Your task to perform on an android device: What is the news today? Image 0: 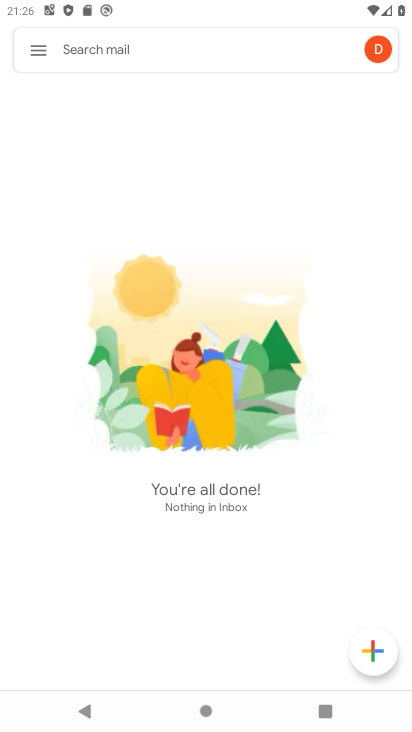
Step 0: press home button
Your task to perform on an android device: What is the news today? Image 1: 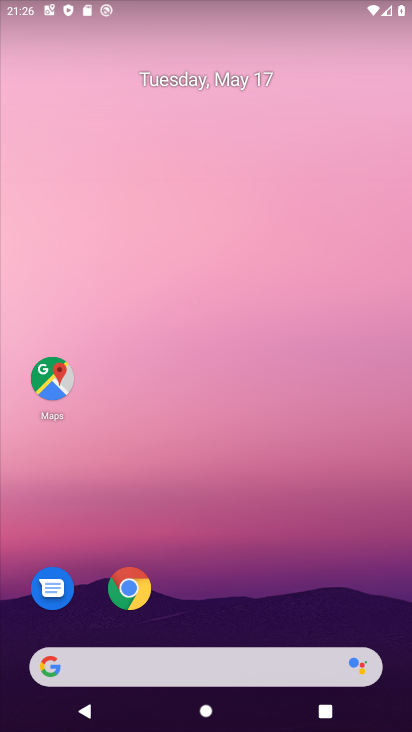
Step 1: drag from (170, 634) to (89, 19)
Your task to perform on an android device: What is the news today? Image 2: 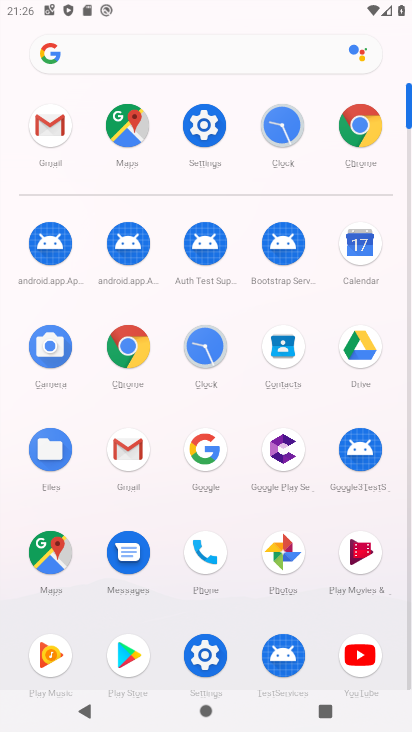
Step 2: click (213, 472)
Your task to perform on an android device: What is the news today? Image 3: 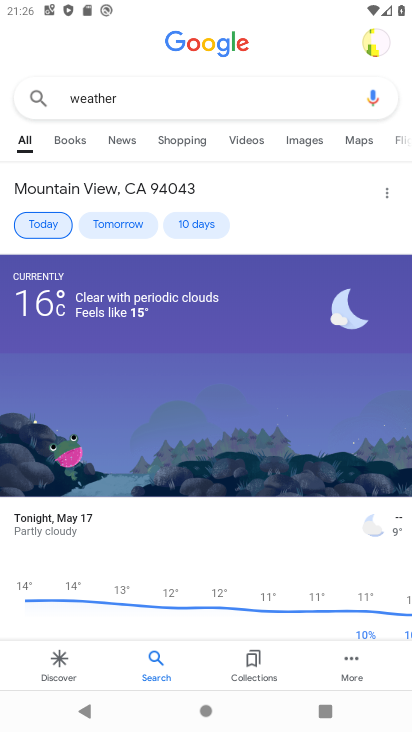
Step 3: click (257, 93)
Your task to perform on an android device: What is the news today? Image 4: 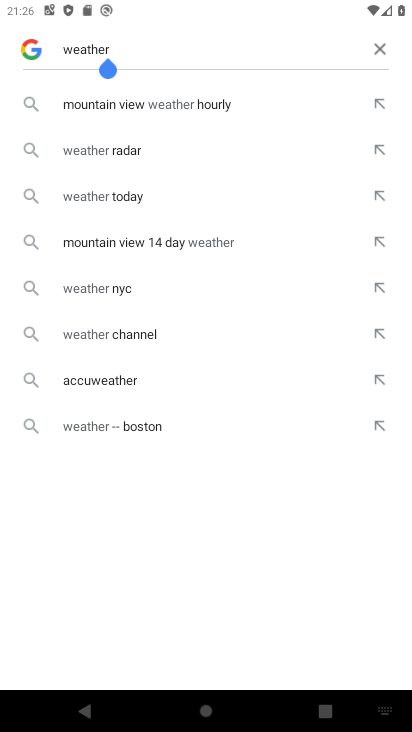
Step 4: click (385, 47)
Your task to perform on an android device: What is the news today? Image 5: 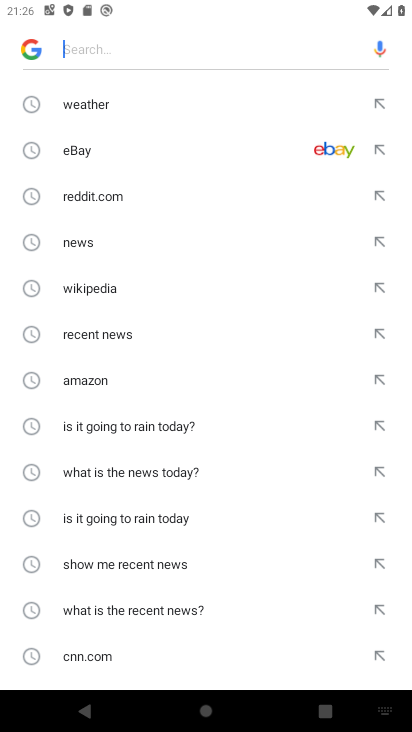
Step 5: click (85, 253)
Your task to perform on an android device: What is the news today? Image 6: 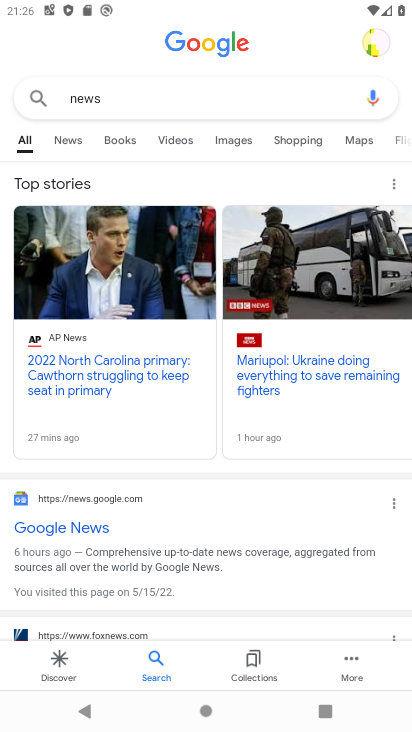
Step 6: click (66, 141)
Your task to perform on an android device: What is the news today? Image 7: 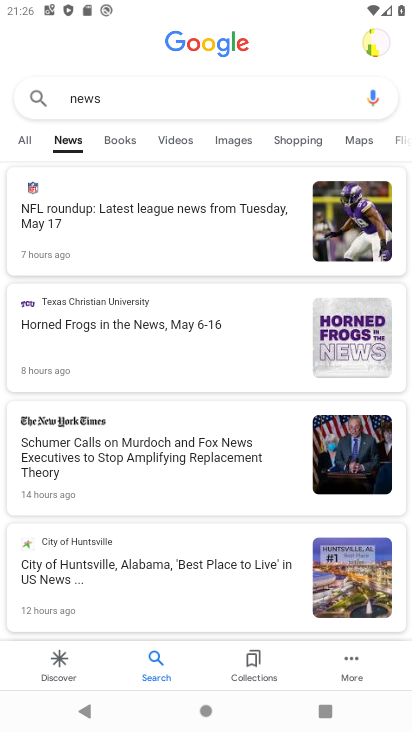
Step 7: task complete